Your task to perform on an android device: Do I have any events today? Image 0: 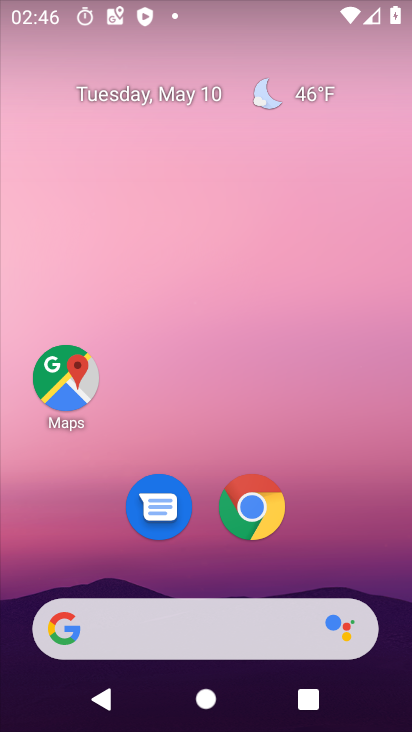
Step 0: drag from (230, 662) to (248, 276)
Your task to perform on an android device: Do I have any events today? Image 1: 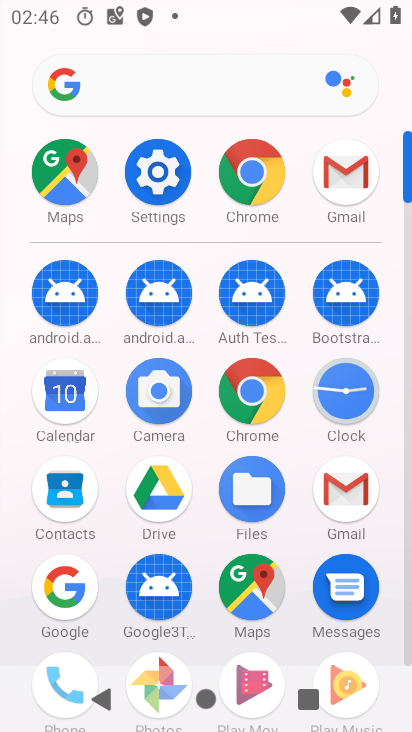
Step 1: click (77, 395)
Your task to perform on an android device: Do I have any events today? Image 2: 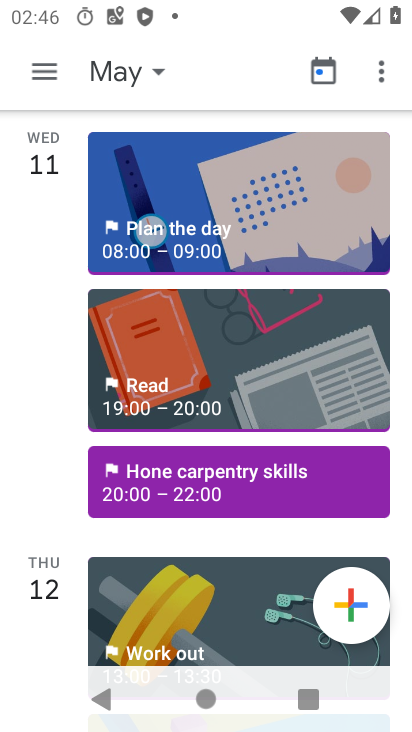
Step 2: click (40, 105)
Your task to perform on an android device: Do I have any events today? Image 3: 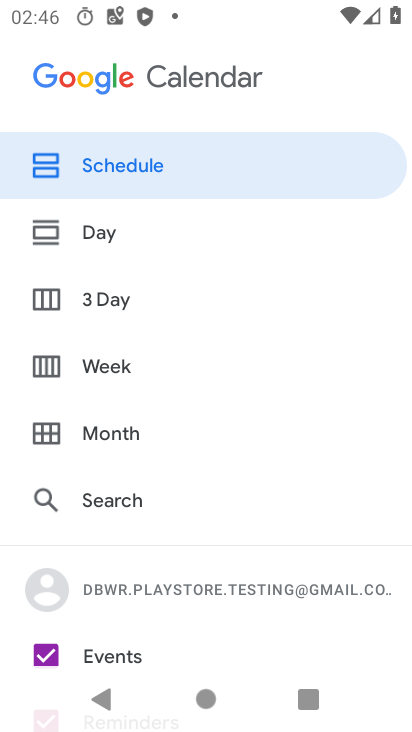
Step 3: click (112, 440)
Your task to perform on an android device: Do I have any events today? Image 4: 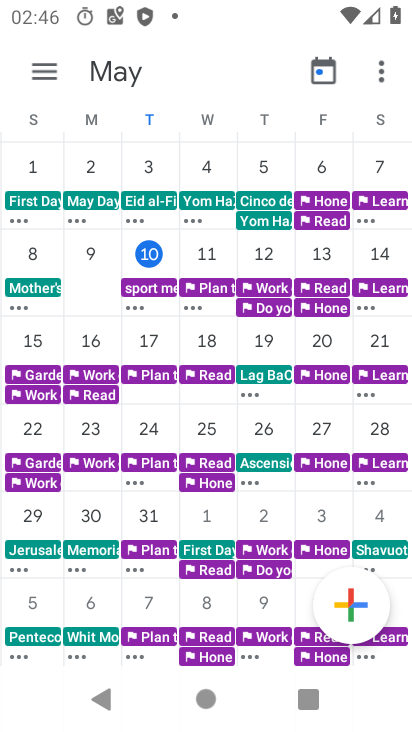
Step 4: click (151, 267)
Your task to perform on an android device: Do I have any events today? Image 5: 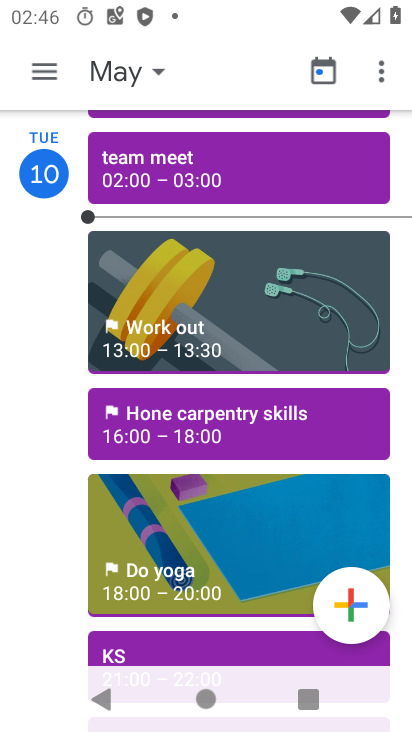
Step 5: task complete